Your task to perform on an android device: toggle javascript in the chrome app Image 0: 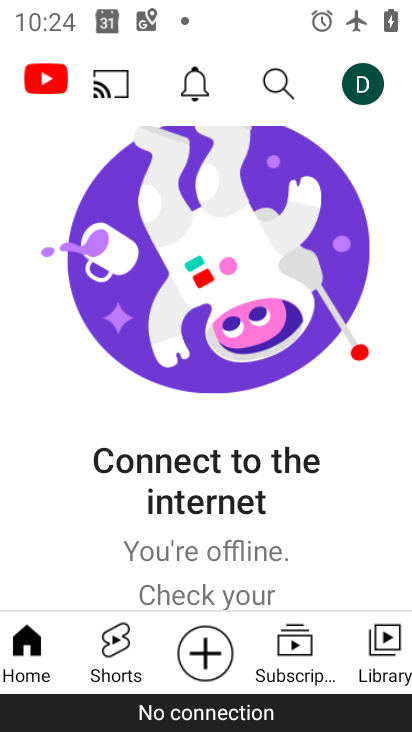
Step 0: press home button
Your task to perform on an android device: toggle javascript in the chrome app Image 1: 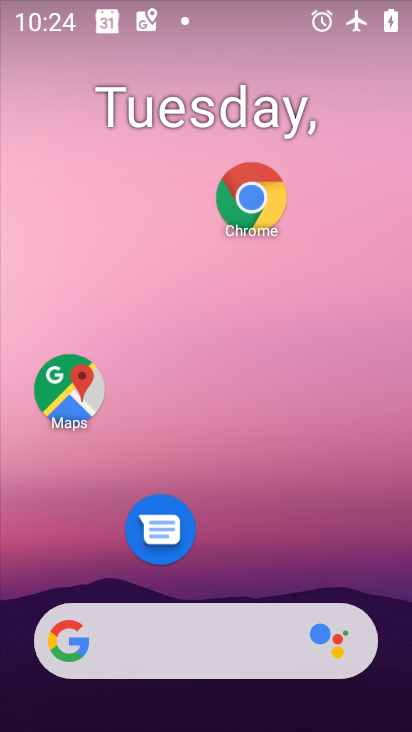
Step 1: click (252, 200)
Your task to perform on an android device: toggle javascript in the chrome app Image 2: 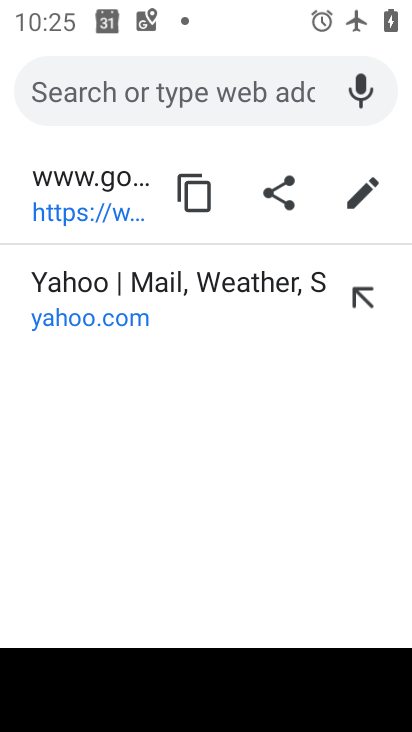
Step 2: click (253, 421)
Your task to perform on an android device: toggle javascript in the chrome app Image 3: 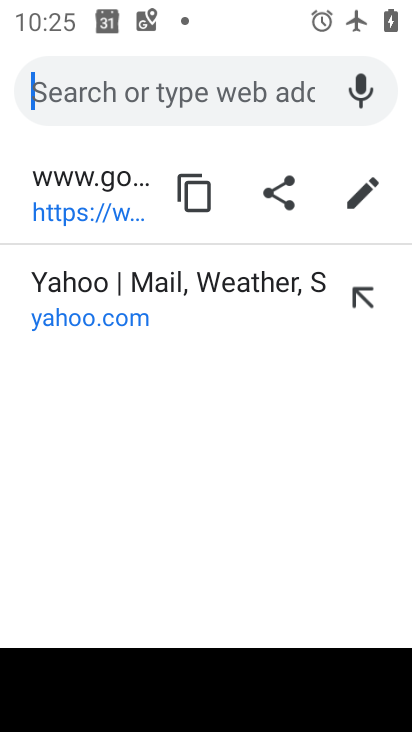
Step 3: press back button
Your task to perform on an android device: toggle javascript in the chrome app Image 4: 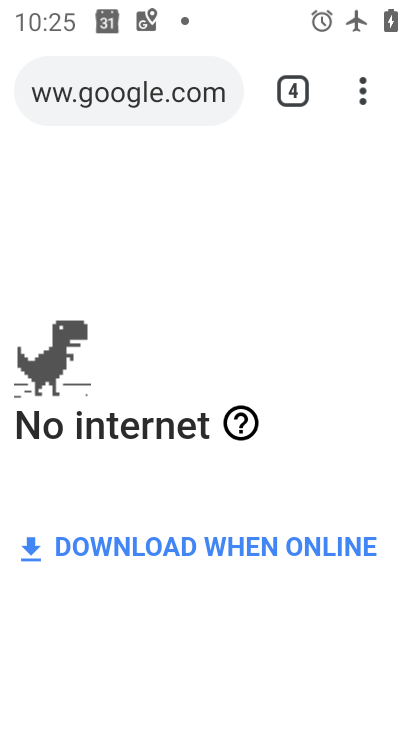
Step 4: click (358, 91)
Your task to perform on an android device: toggle javascript in the chrome app Image 5: 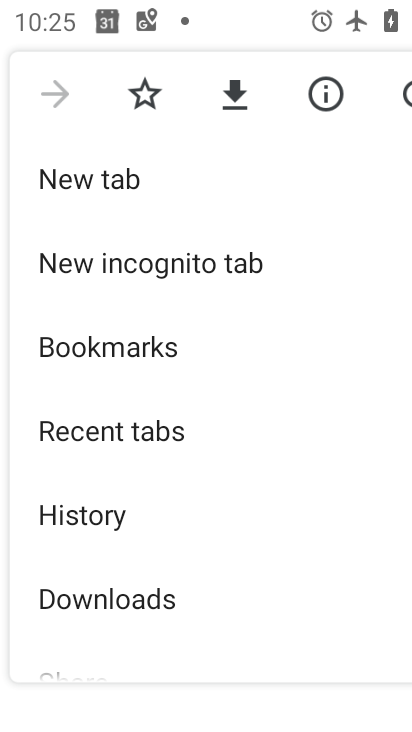
Step 5: drag from (202, 543) to (246, 293)
Your task to perform on an android device: toggle javascript in the chrome app Image 6: 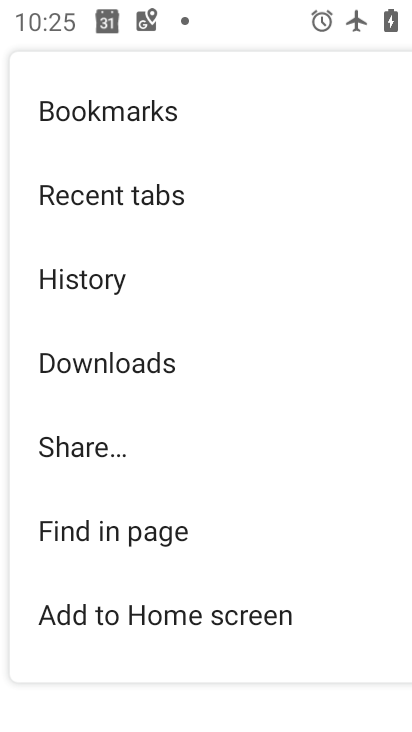
Step 6: drag from (144, 618) to (161, 394)
Your task to perform on an android device: toggle javascript in the chrome app Image 7: 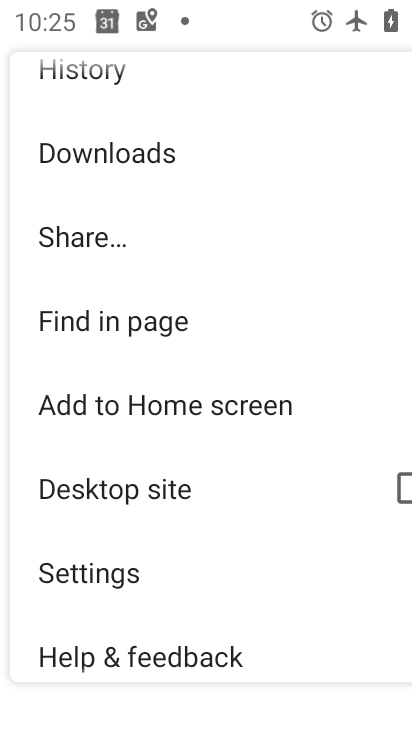
Step 7: click (166, 586)
Your task to perform on an android device: toggle javascript in the chrome app Image 8: 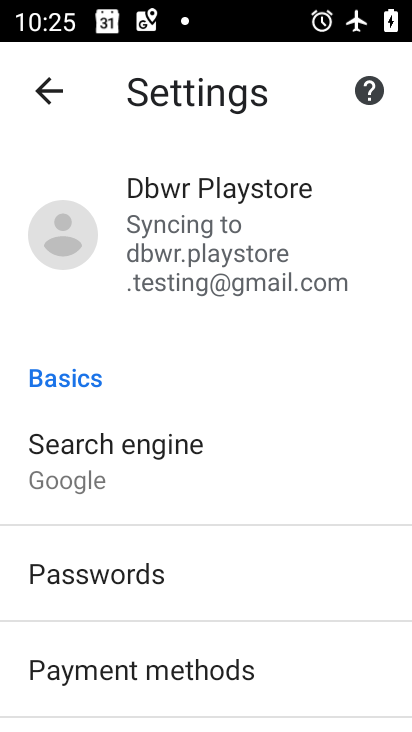
Step 8: drag from (166, 586) to (202, 294)
Your task to perform on an android device: toggle javascript in the chrome app Image 9: 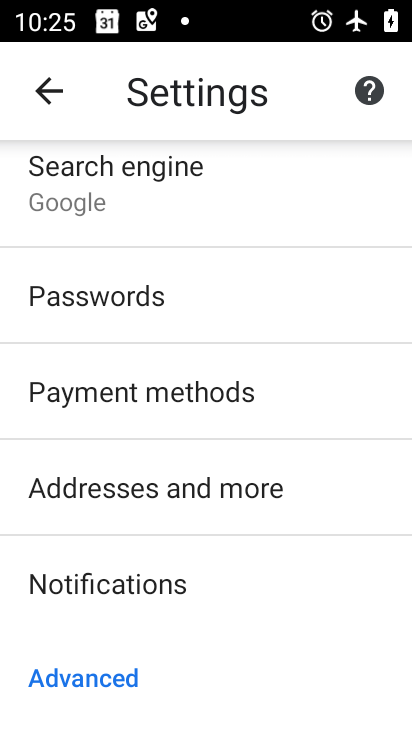
Step 9: drag from (180, 601) to (242, 314)
Your task to perform on an android device: toggle javascript in the chrome app Image 10: 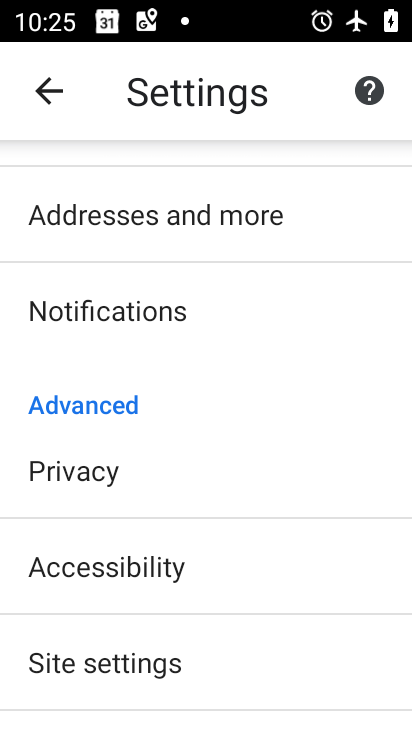
Step 10: click (247, 661)
Your task to perform on an android device: toggle javascript in the chrome app Image 11: 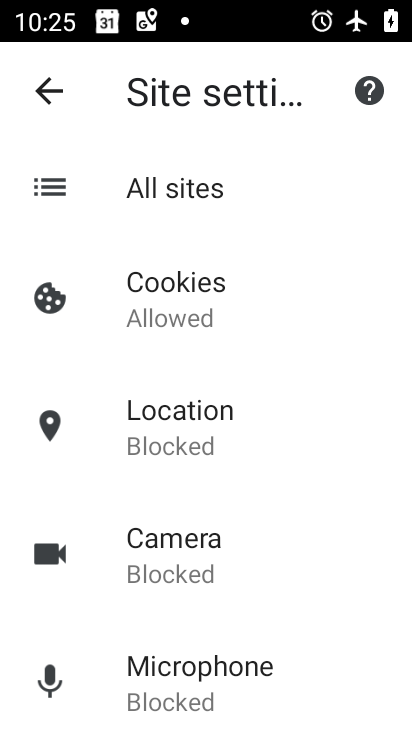
Step 11: drag from (237, 593) to (303, 172)
Your task to perform on an android device: toggle javascript in the chrome app Image 12: 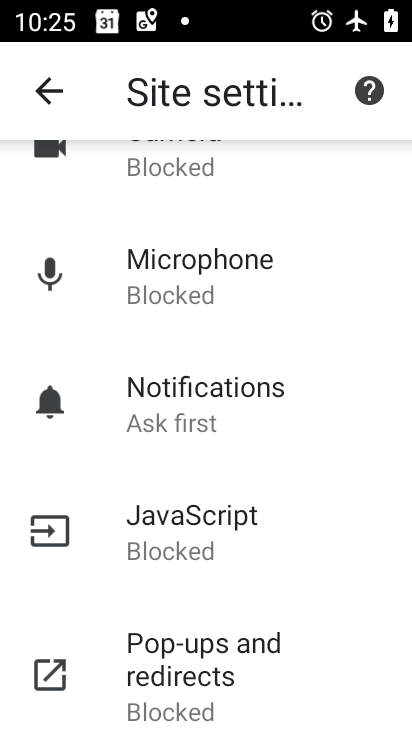
Step 12: click (234, 557)
Your task to perform on an android device: toggle javascript in the chrome app Image 13: 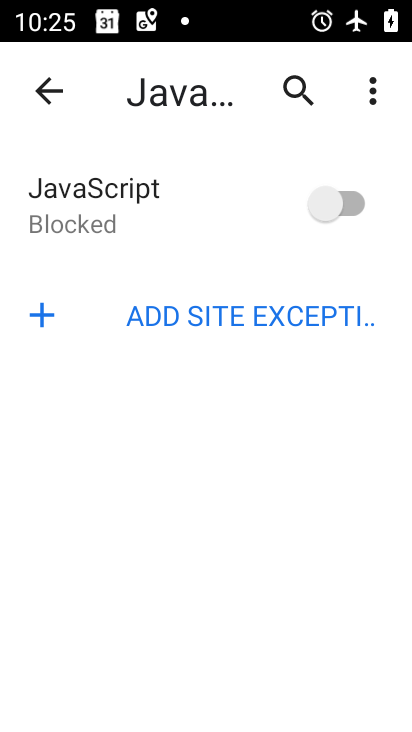
Step 13: click (185, 237)
Your task to perform on an android device: toggle javascript in the chrome app Image 14: 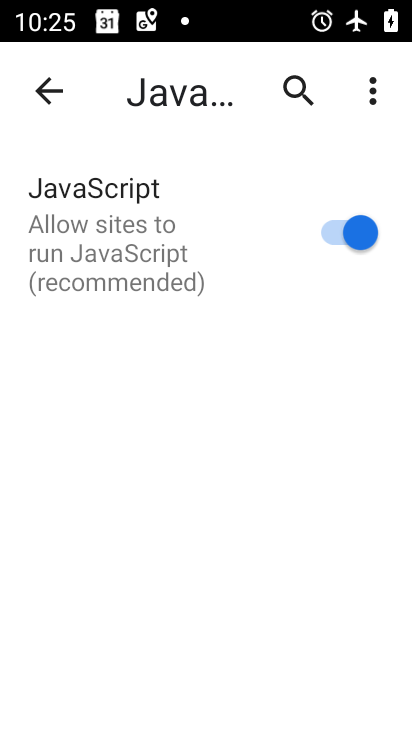
Step 14: task complete